Your task to perform on an android device: Open my contact list Image 0: 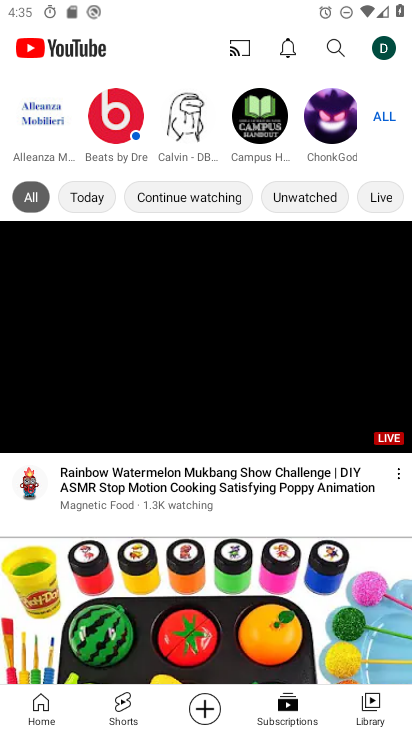
Step 0: press back button
Your task to perform on an android device: Open my contact list Image 1: 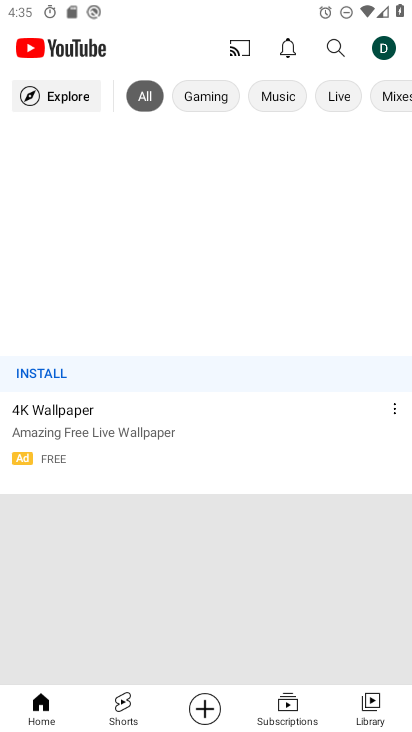
Step 1: press back button
Your task to perform on an android device: Open my contact list Image 2: 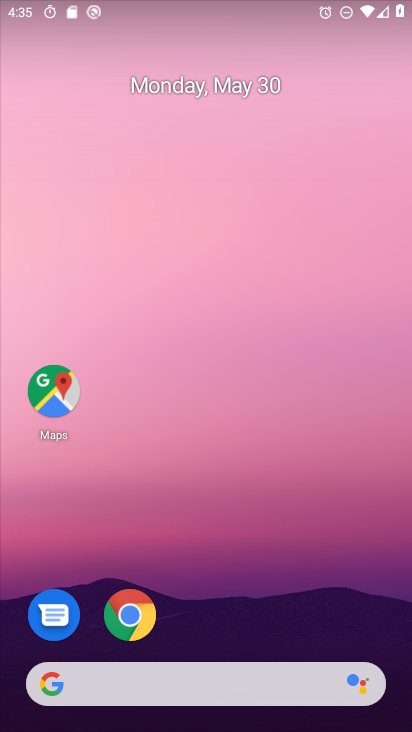
Step 2: drag from (214, 612) to (169, 0)
Your task to perform on an android device: Open my contact list Image 3: 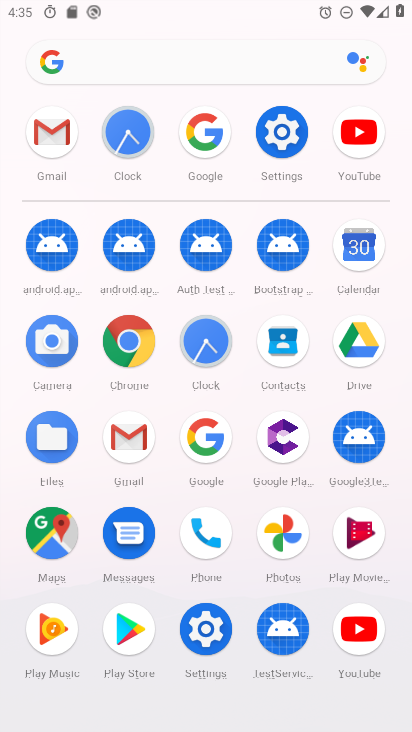
Step 3: click (281, 340)
Your task to perform on an android device: Open my contact list Image 4: 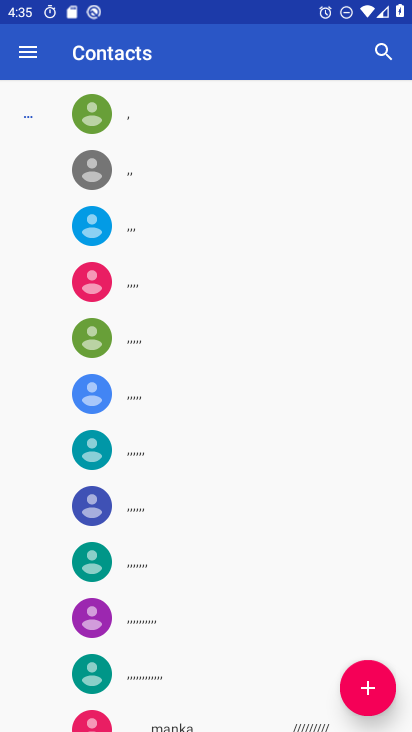
Step 4: task complete